Your task to perform on an android device: open chrome privacy settings Image 0: 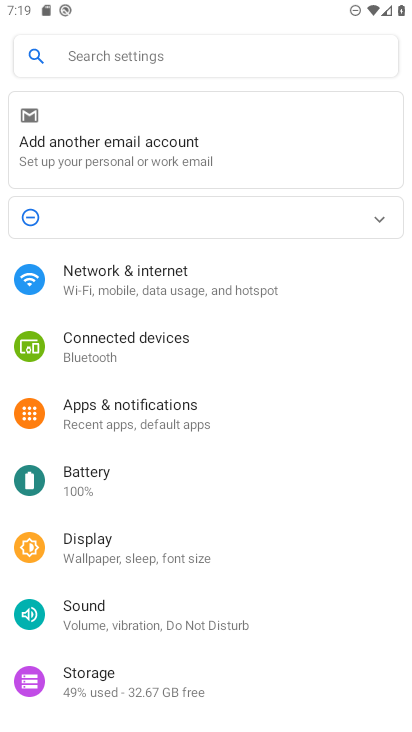
Step 0: press home button
Your task to perform on an android device: open chrome privacy settings Image 1: 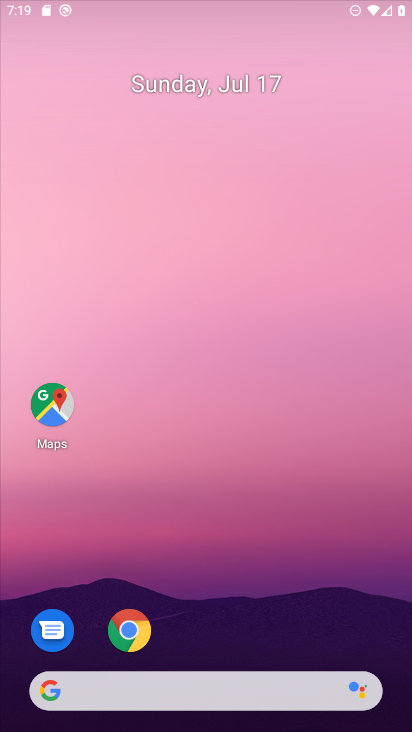
Step 1: drag from (378, 618) to (308, 79)
Your task to perform on an android device: open chrome privacy settings Image 2: 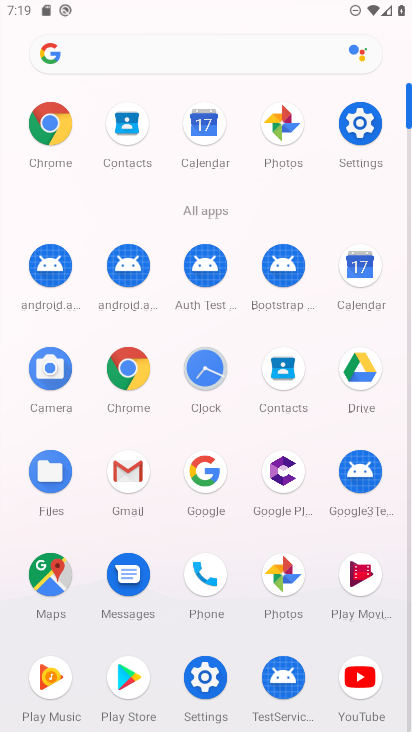
Step 2: click (131, 383)
Your task to perform on an android device: open chrome privacy settings Image 3: 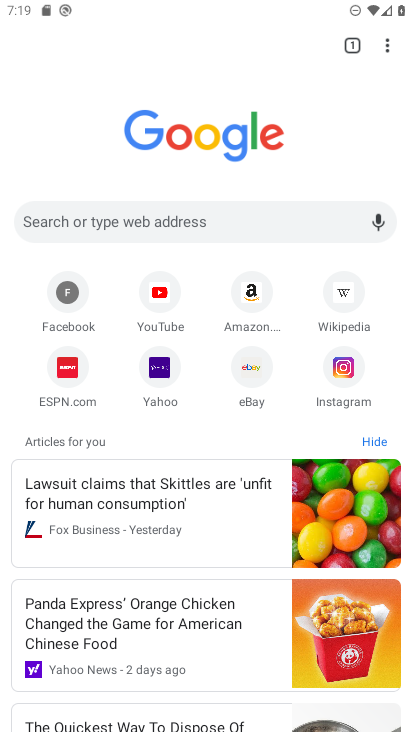
Step 3: click (385, 41)
Your task to perform on an android device: open chrome privacy settings Image 4: 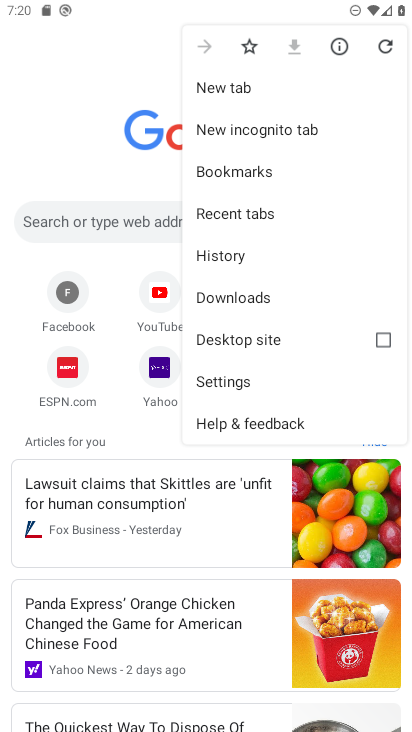
Step 4: click (257, 378)
Your task to perform on an android device: open chrome privacy settings Image 5: 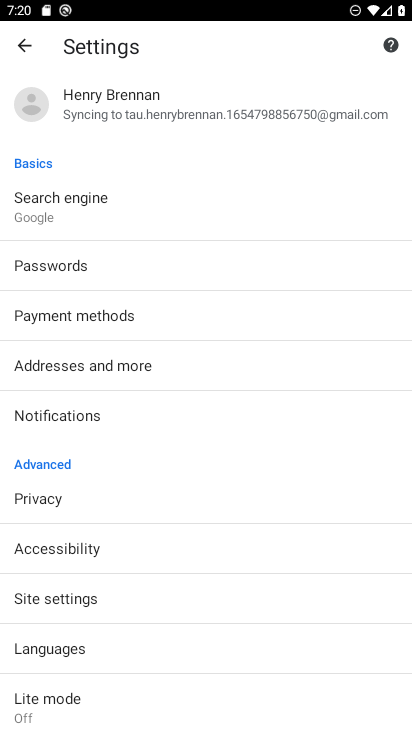
Step 5: click (46, 509)
Your task to perform on an android device: open chrome privacy settings Image 6: 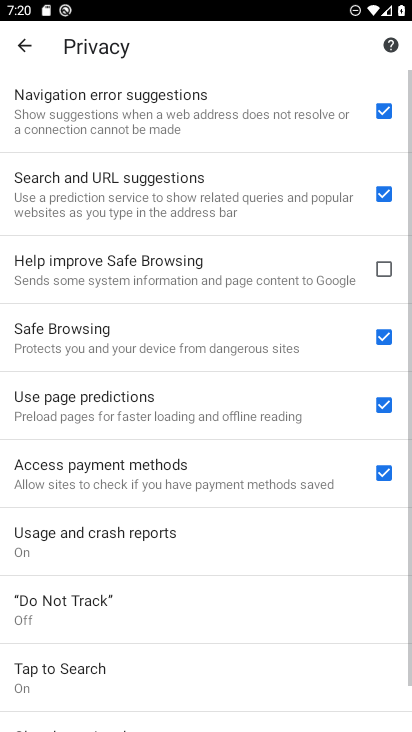
Step 6: task complete